Your task to perform on an android device: turn off javascript in the chrome app Image 0: 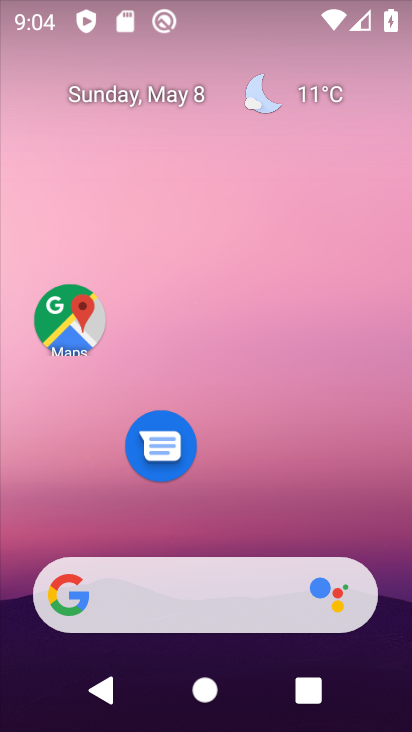
Step 0: click (277, 53)
Your task to perform on an android device: turn off javascript in the chrome app Image 1: 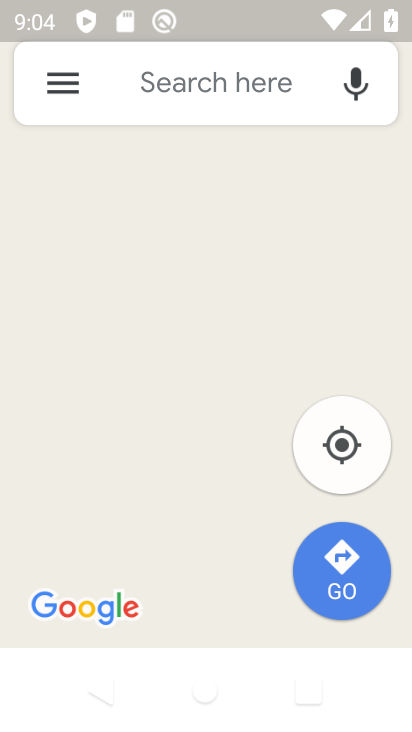
Step 1: press home button
Your task to perform on an android device: turn off javascript in the chrome app Image 2: 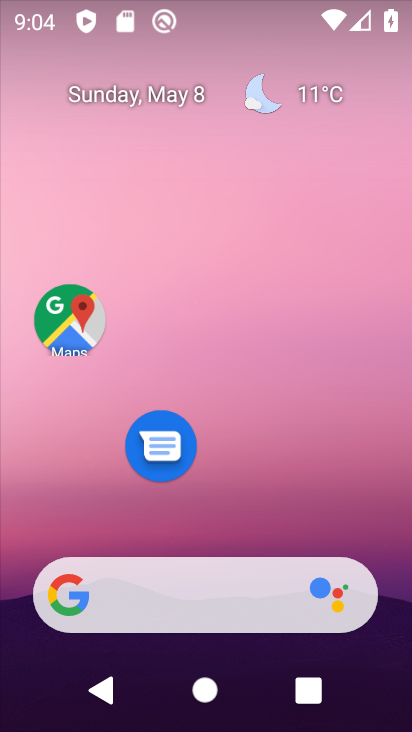
Step 2: drag from (293, 474) to (317, 52)
Your task to perform on an android device: turn off javascript in the chrome app Image 3: 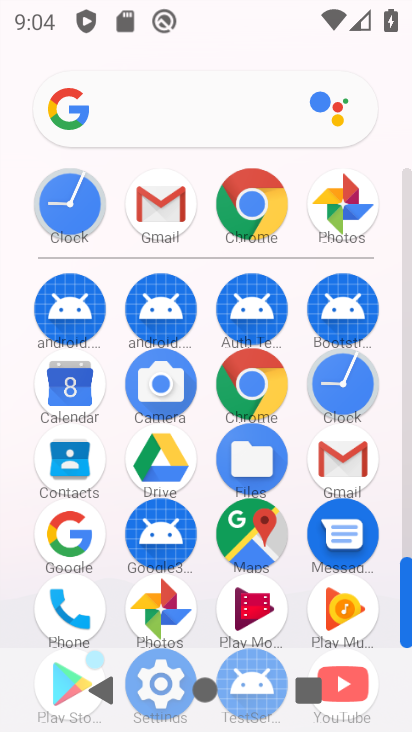
Step 3: click (278, 200)
Your task to perform on an android device: turn off javascript in the chrome app Image 4: 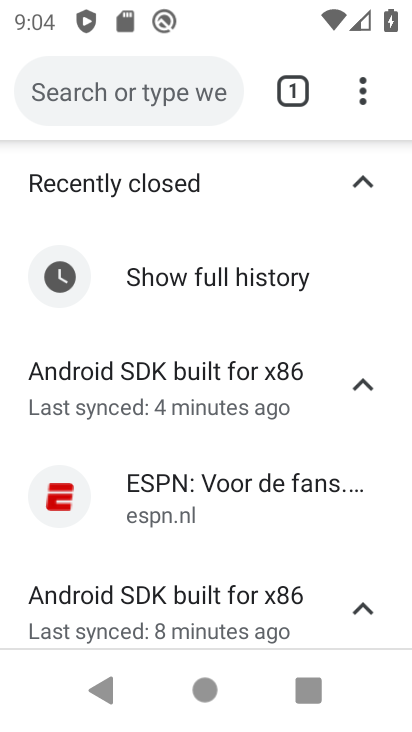
Step 4: drag from (368, 88) to (242, 474)
Your task to perform on an android device: turn off javascript in the chrome app Image 5: 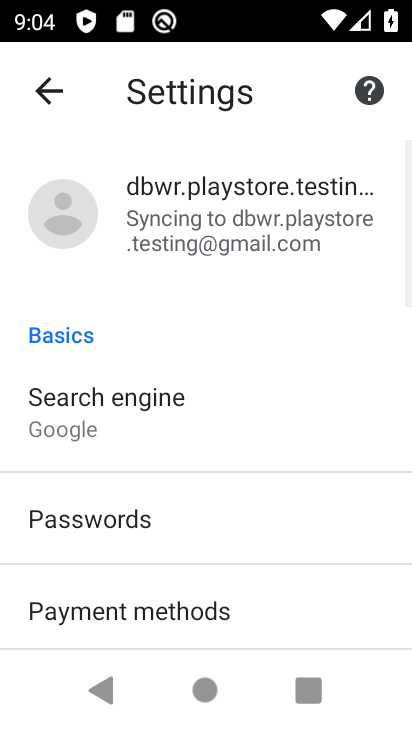
Step 5: drag from (301, 565) to (318, 184)
Your task to perform on an android device: turn off javascript in the chrome app Image 6: 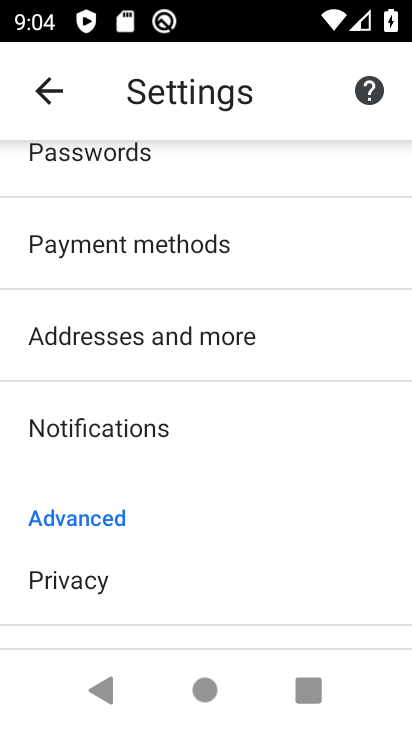
Step 6: drag from (265, 539) to (277, 218)
Your task to perform on an android device: turn off javascript in the chrome app Image 7: 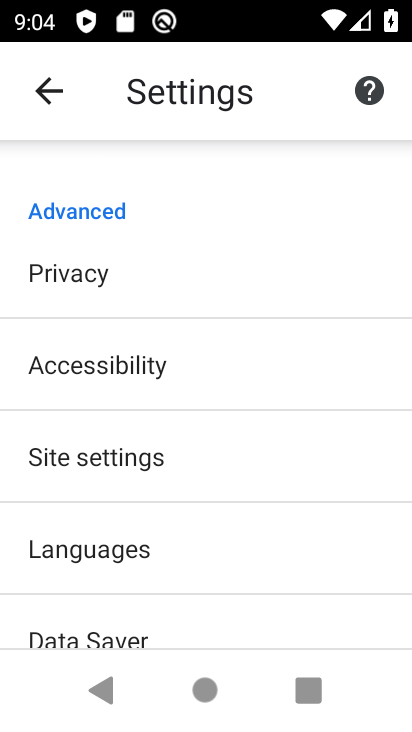
Step 7: click (146, 453)
Your task to perform on an android device: turn off javascript in the chrome app Image 8: 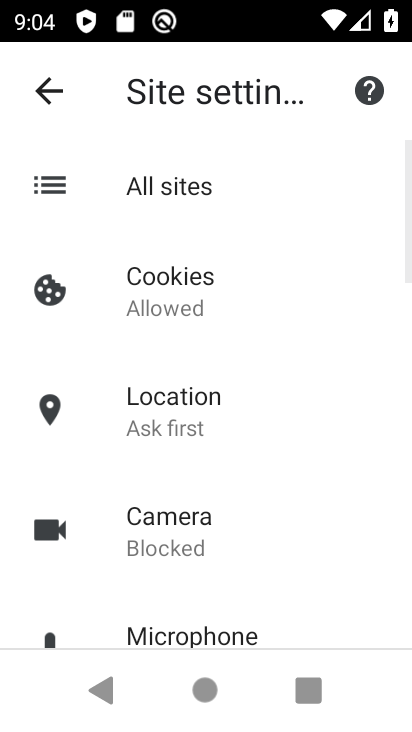
Step 8: drag from (306, 463) to (306, 214)
Your task to perform on an android device: turn off javascript in the chrome app Image 9: 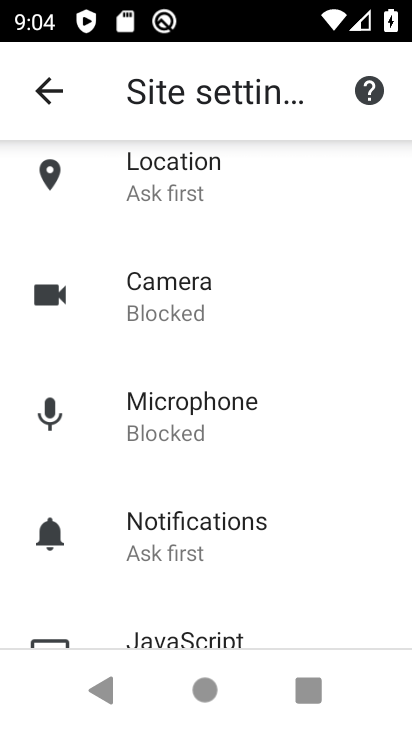
Step 9: drag from (312, 548) to (321, 426)
Your task to perform on an android device: turn off javascript in the chrome app Image 10: 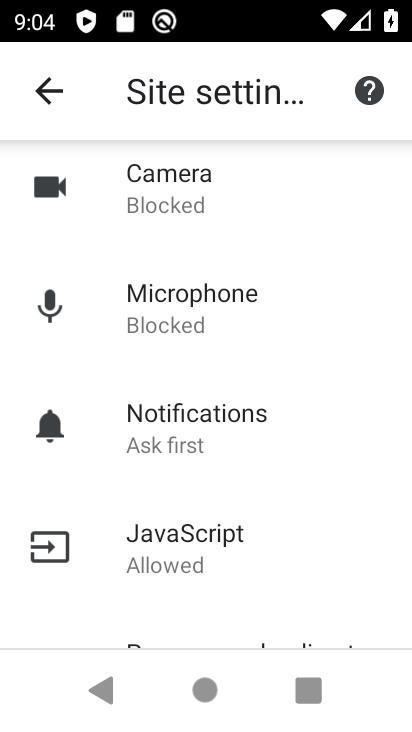
Step 10: click (237, 547)
Your task to perform on an android device: turn off javascript in the chrome app Image 11: 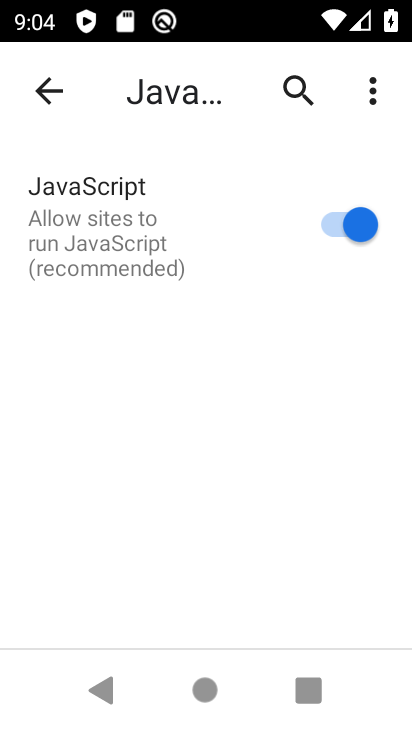
Step 11: click (326, 246)
Your task to perform on an android device: turn off javascript in the chrome app Image 12: 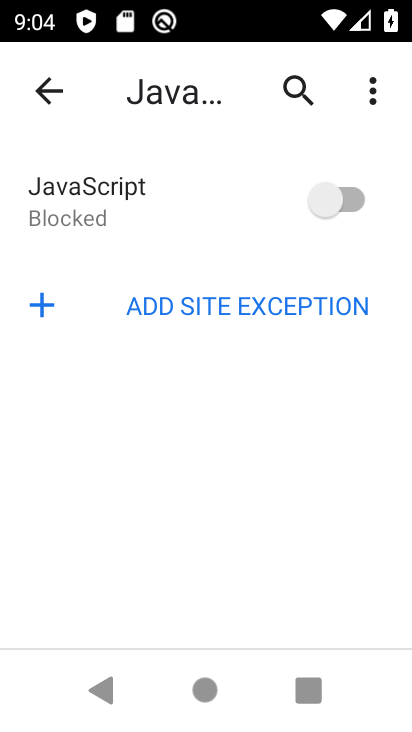
Step 12: task complete